Your task to perform on an android device: change the clock style Image 0: 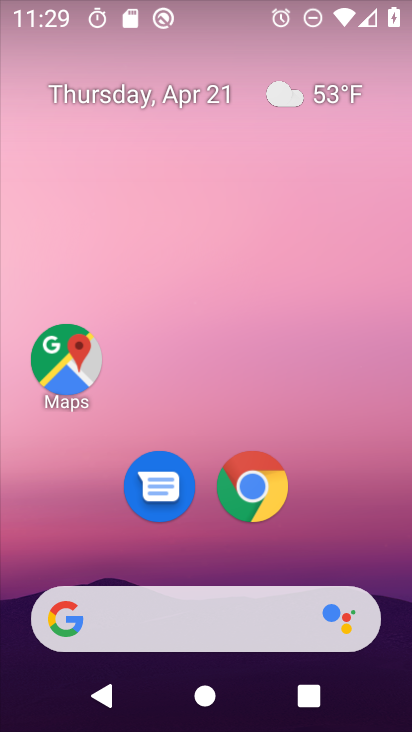
Step 0: drag from (392, 526) to (405, 3)
Your task to perform on an android device: change the clock style Image 1: 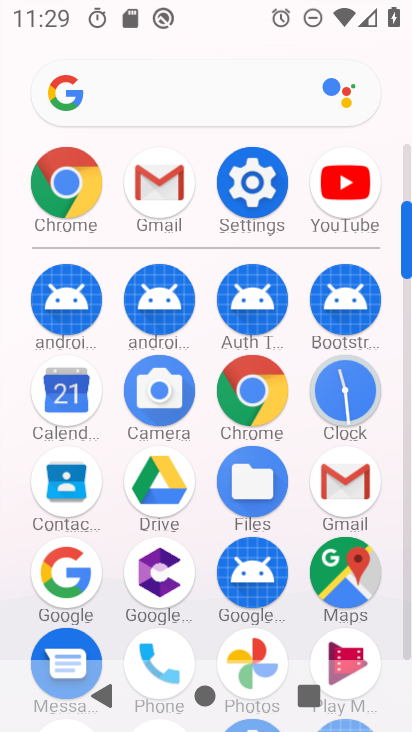
Step 1: click (347, 406)
Your task to perform on an android device: change the clock style Image 2: 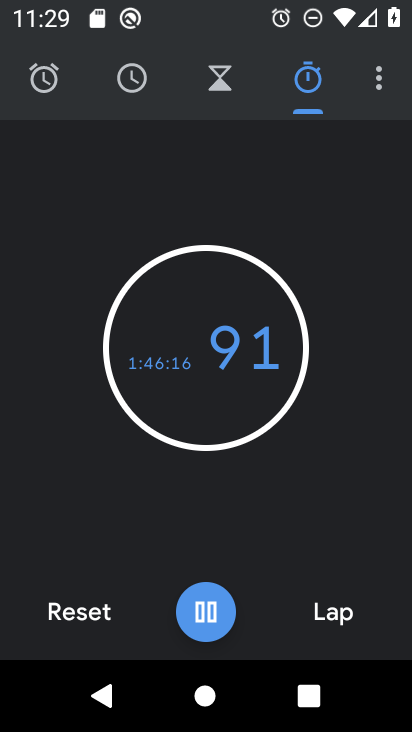
Step 2: click (375, 77)
Your task to perform on an android device: change the clock style Image 3: 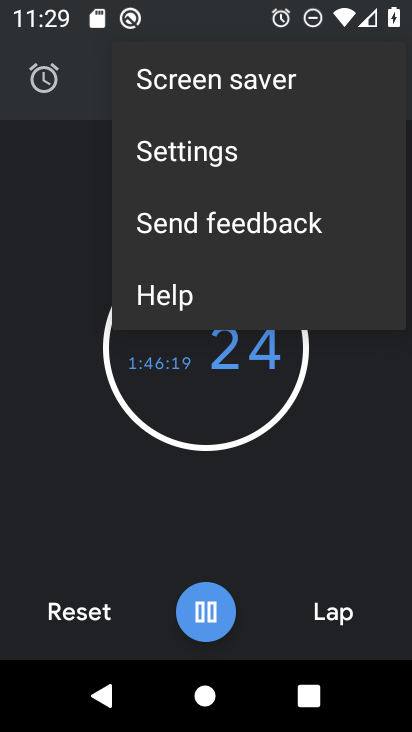
Step 3: click (186, 158)
Your task to perform on an android device: change the clock style Image 4: 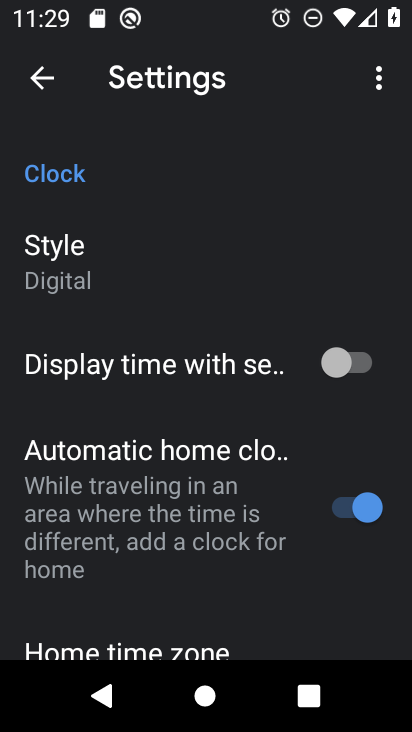
Step 4: click (58, 250)
Your task to perform on an android device: change the clock style Image 5: 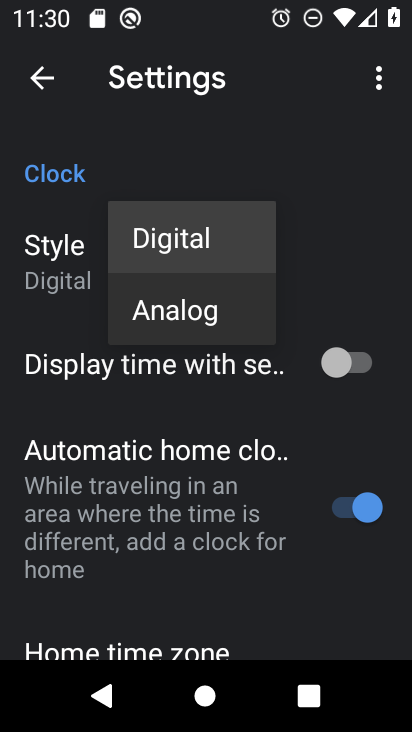
Step 5: click (138, 320)
Your task to perform on an android device: change the clock style Image 6: 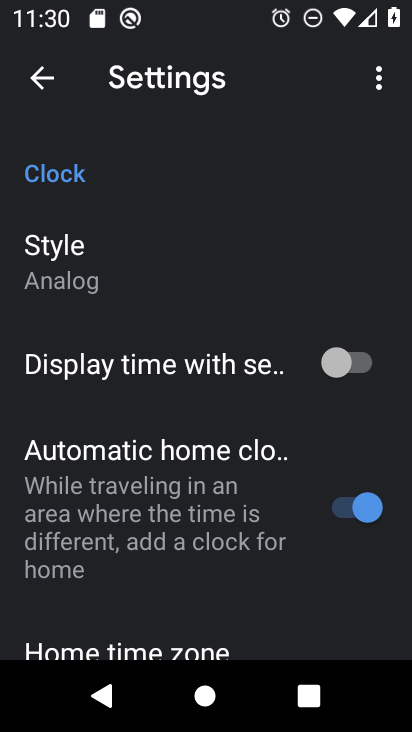
Step 6: task complete